Your task to perform on an android device: turn off improve location accuracy Image 0: 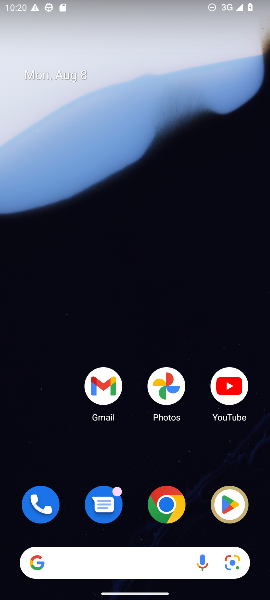
Step 0: drag from (133, 425) to (106, 19)
Your task to perform on an android device: turn off improve location accuracy Image 1: 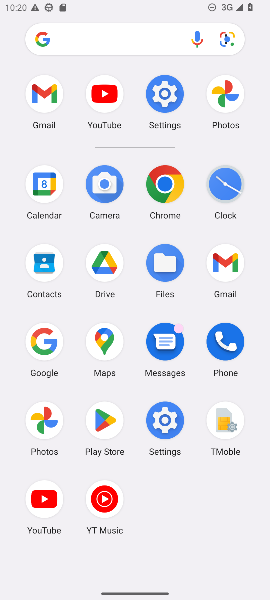
Step 1: click (170, 440)
Your task to perform on an android device: turn off improve location accuracy Image 2: 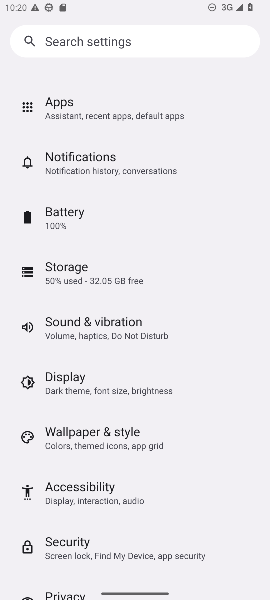
Step 2: drag from (110, 222) to (124, 178)
Your task to perform on an android device: turn off improve location accuracy Image 3: 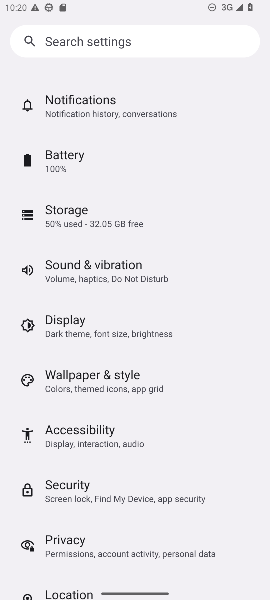
Step 3: drag from (117, 481) to (123, 309)
Your task to perform on an android device: turn off improve location accuracy Image 4: 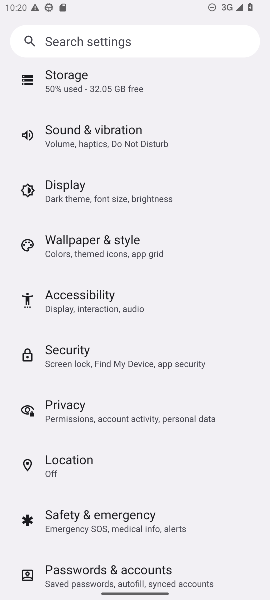
Step 4: click (83, 470)
Your task to perform on an android device: turn off improve location accuracy Image 5: 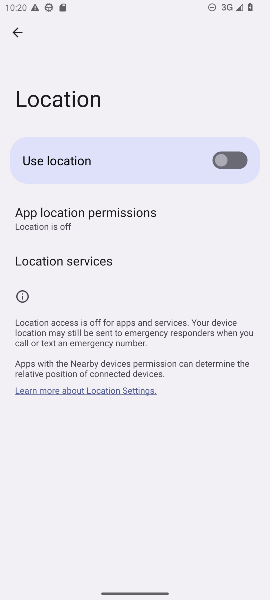
Step 5: click (68, 261)
Your task to perform on an android device: turn off improve location accuracy Image 6: 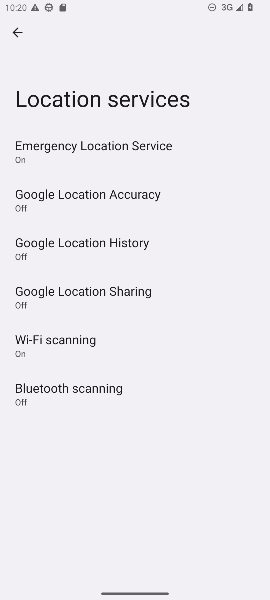
Step 6: click (98, 203)
Your task to perform on an android device: turn off improve location accuracy Image 7: 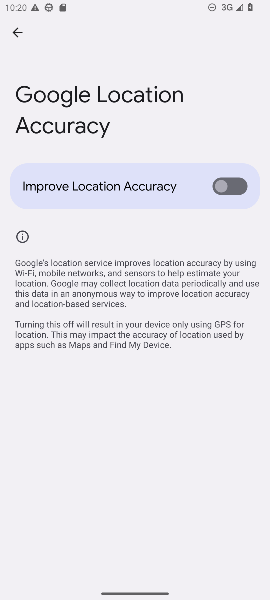
Step 7: click (244, 181)
Your task to perform on an android device: turn off improve location accuracy Image 8: 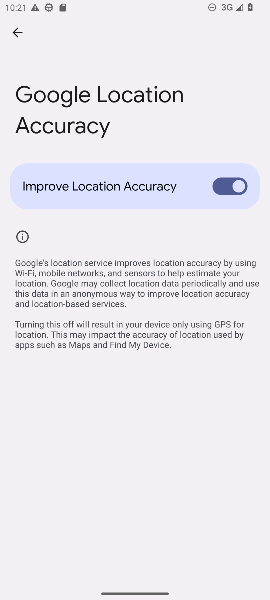
Step 8: task complete